Your task to perform on an android device: add a label to a message in the gmail app Image 0: 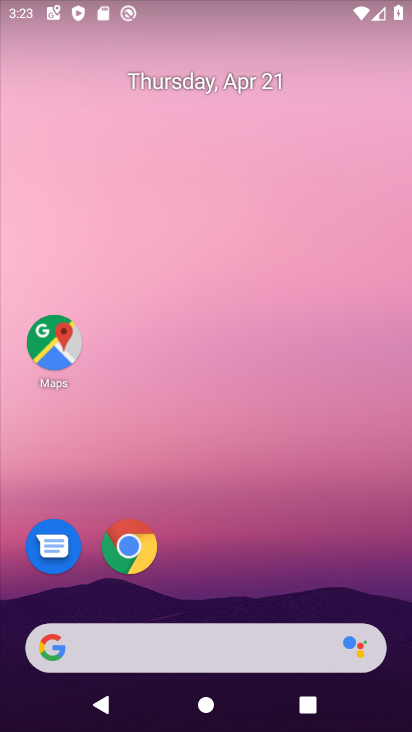
Step 0: drag from (177, 598) to (334, 134)
Your task to perform on an android device: add a label to a message in the gmail app Image 1: 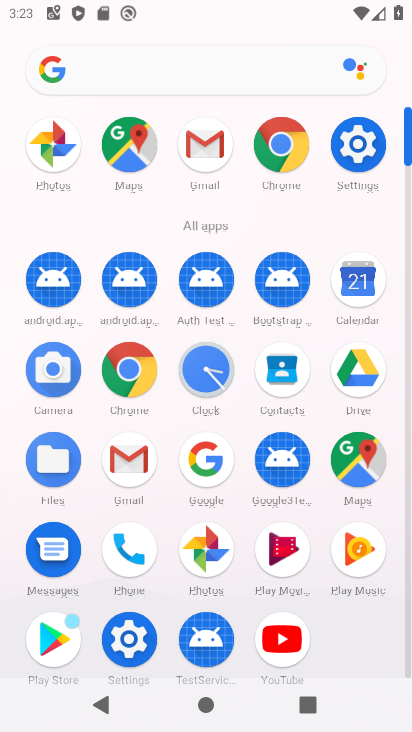
Step 1: click (151, 469)
Your task to perform on an android device: add a label to a message in the gmail app Image 2: 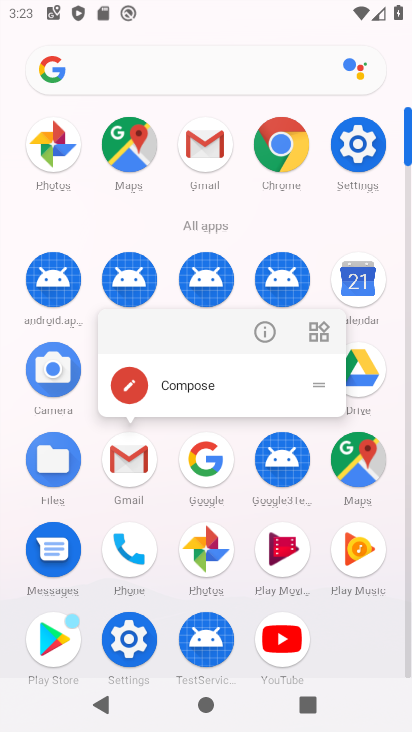
Step 2: click (143, 472)
Your task to perform on an android device: add a label to a message in the gmail app Image 3: 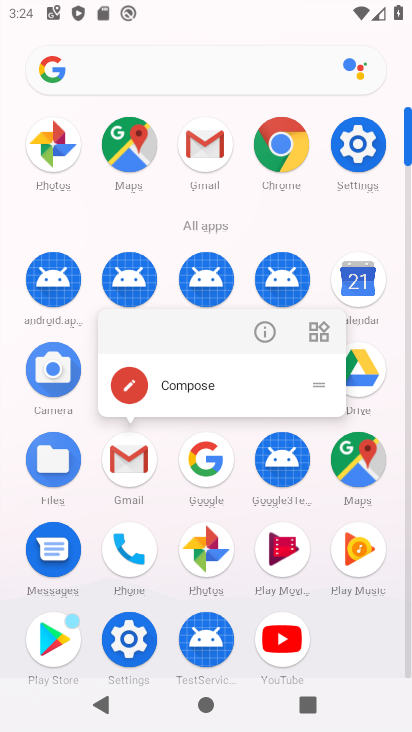
Step 3: click (138, 474)
Your task to perform on an android device: add a label to a message in the gmail app Image 4: 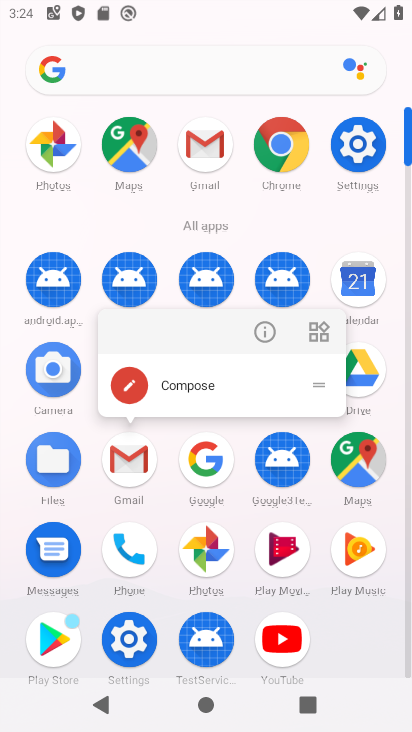
Step 4: click (135, 464)
Your task to perform on an android device: add a label to a message in the gmail app Image 5: 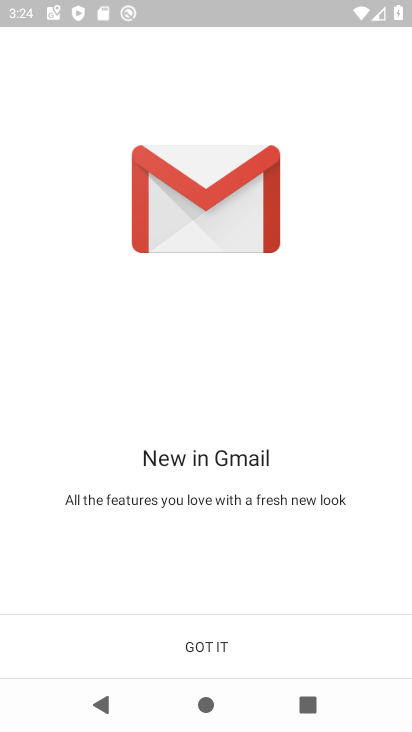
Step 5: click (224, 648)
Your task to perform on an android device: add a label to a message in the gmail app Image 6: 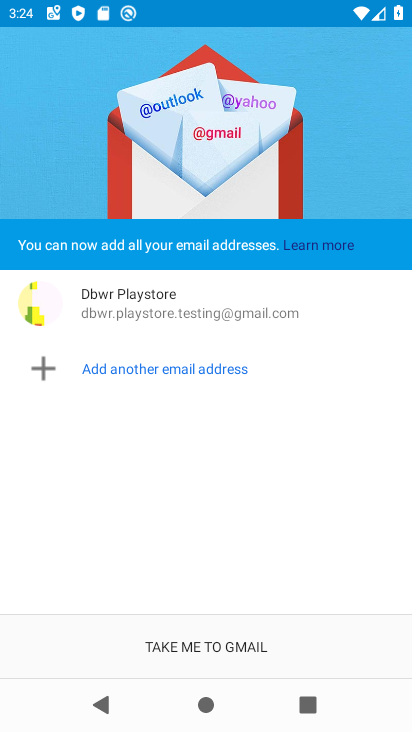
Step 6: click (223, 647)
Your task to perform on an android device: add a label to a message in the gmail app Image 7: 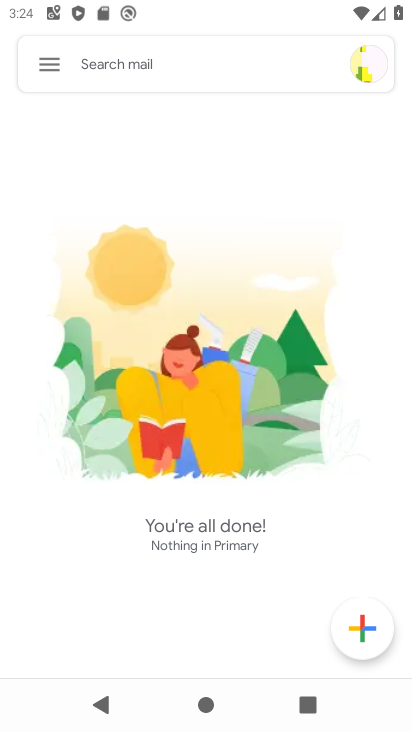
Step 7: click (51, 66)
Your task to perform on an android device: add a label to a message in the gmail app Image 8: 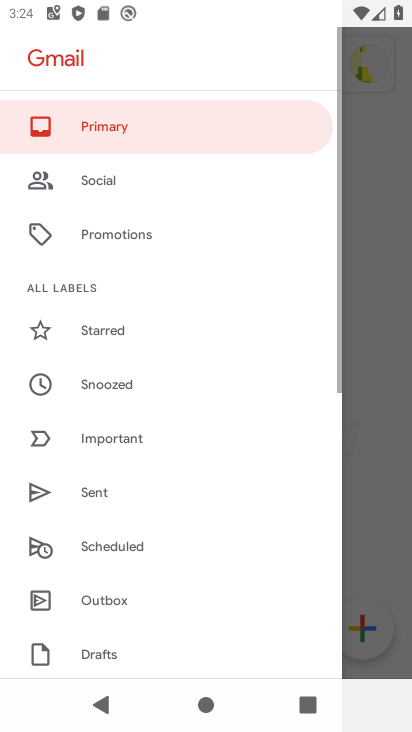
Step 8: drag from (113, 593) to (234, 275)
Your task to perform on an android device: add a label to a message in the gmail app Image 9: 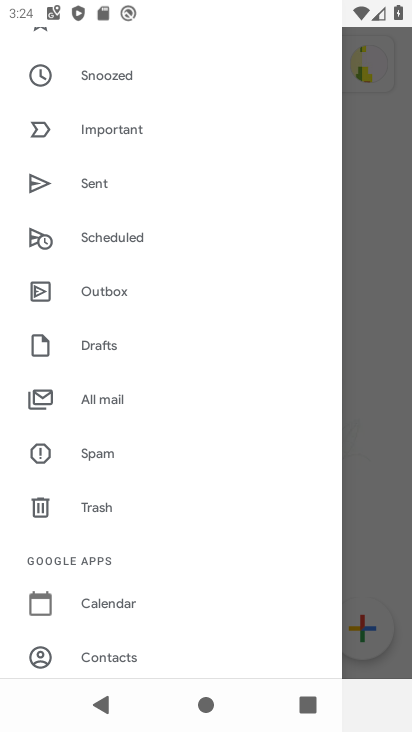
Step 9: click (138, 407)
Your task to perform on an android device: add a label to a message in the gmail app Image 10: 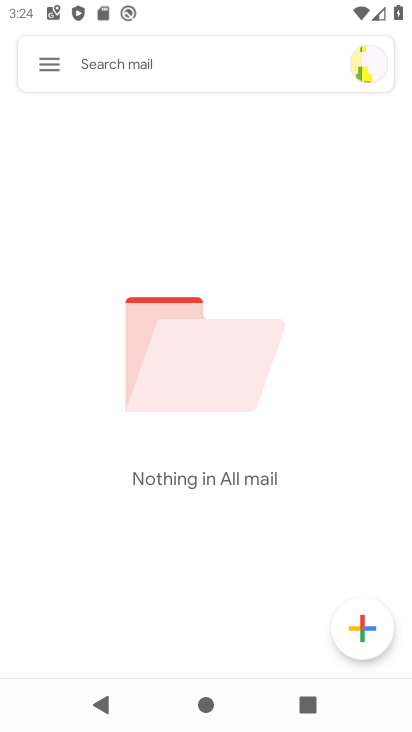
Step 10: task complete